Your task to perform on an android device: Open Google Chrome Image 0: 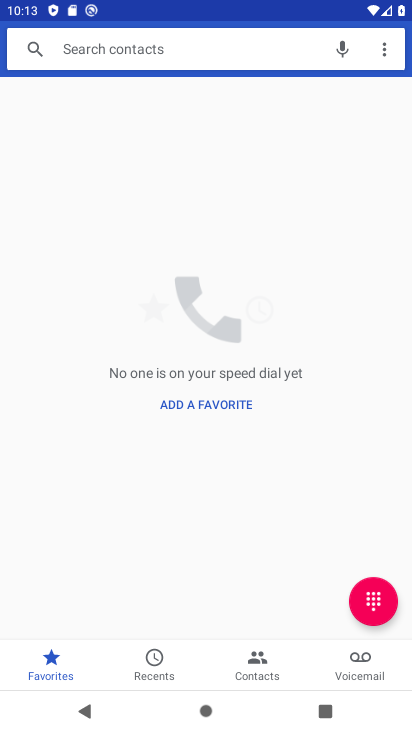
Step 0: press home button
Your task to perform on an android device: Open Google Chrome Image 1: 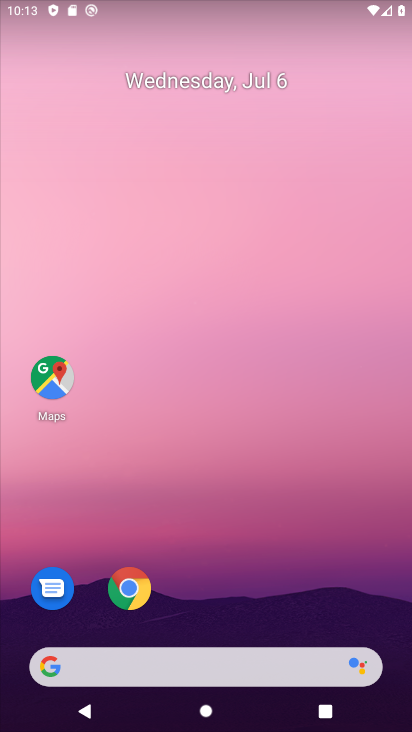
Step 1: click (123, 582)
Your task to perform on an android device: Open Google Chrome Image 2: 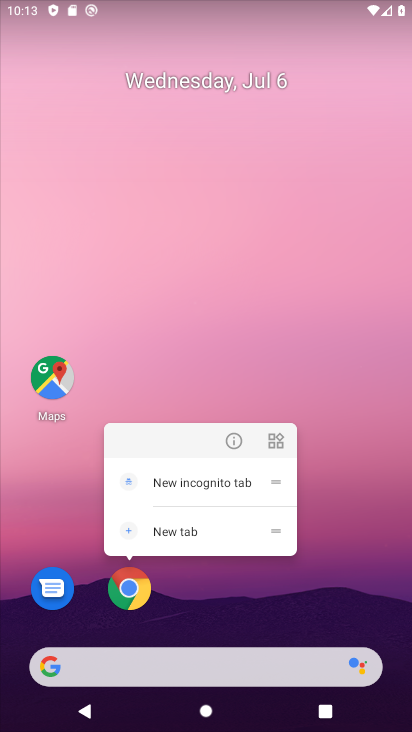
Step 2: click (130, 583)
Your task to perform on an android device: Open Google Chrome Image 3: 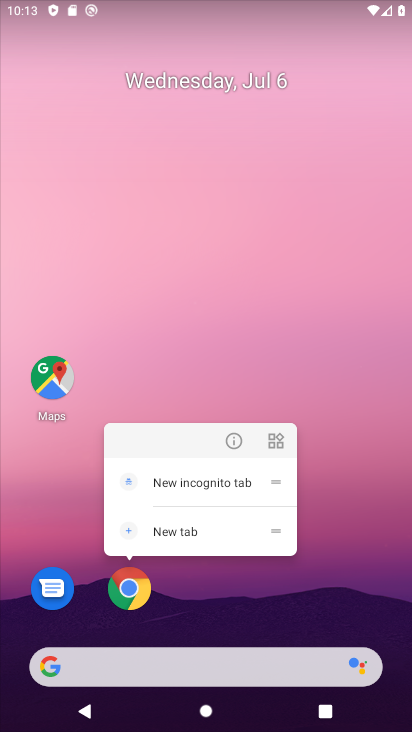
Step 3: click (141, 599)
Your task to perform on an android device: Open Google Chrome Image 4: 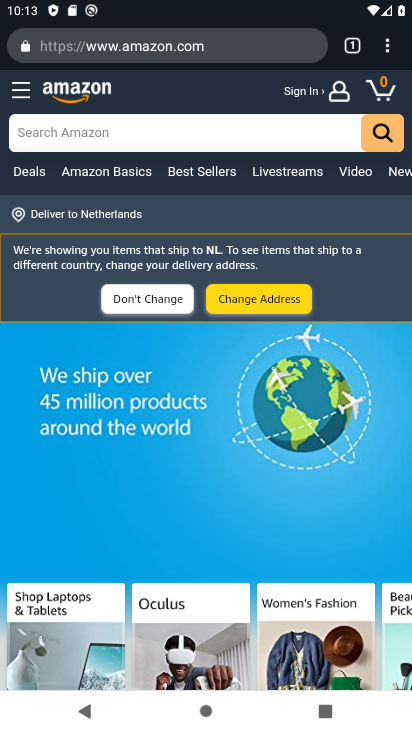
Step 4: task complete